Your task to perform on an android device: Open accessibility settings Image 0: 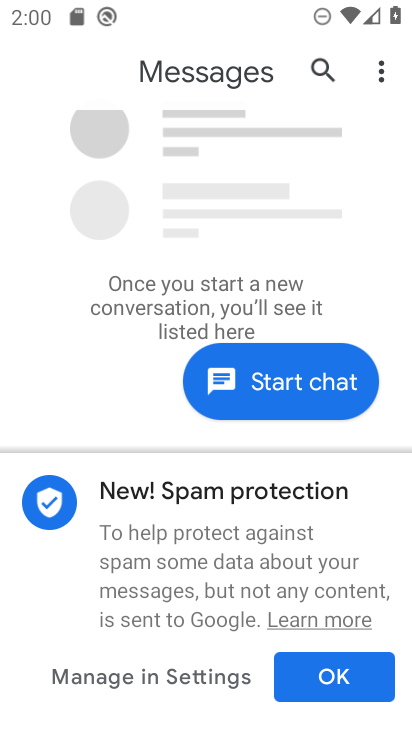
Step 0: press home button
Your task to perform on an android device: Open accessibility settings Image 1: 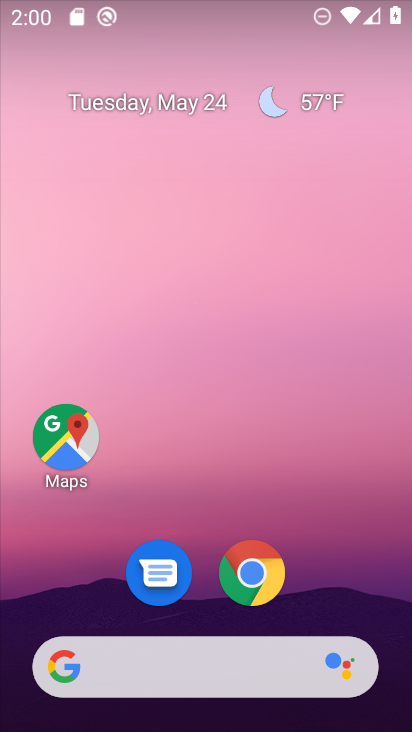
Step 1: drag from (409, 547) to (293, 149)
Your task to perform on an android device: Open accessibility settings Image 2: 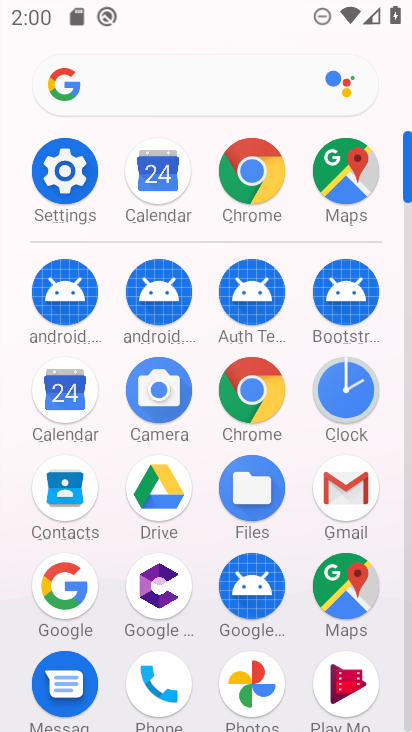
Step 2: click (65, 180)
Your task to perform on an android device: Open accessibility settings Image 3: 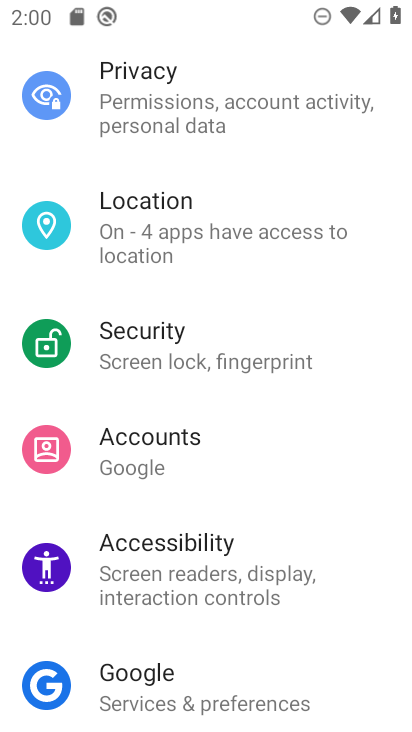
Step 3: click (158, 548)
Your task to perform on an android device: Open accessibility settings Image 4: 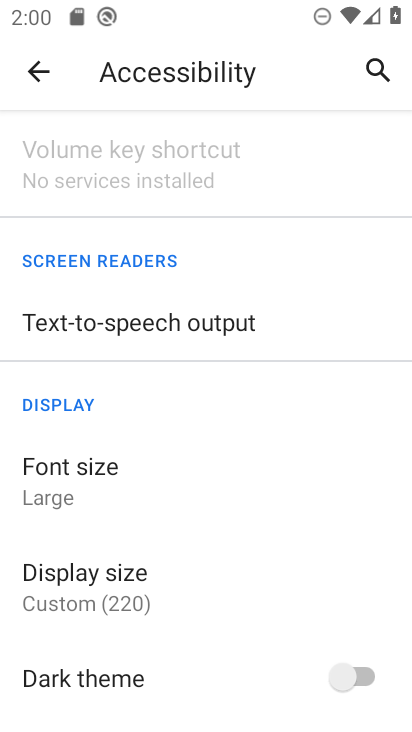
Step 4: task complete